Your task to perform on an android device: Open battery settings Image 0: 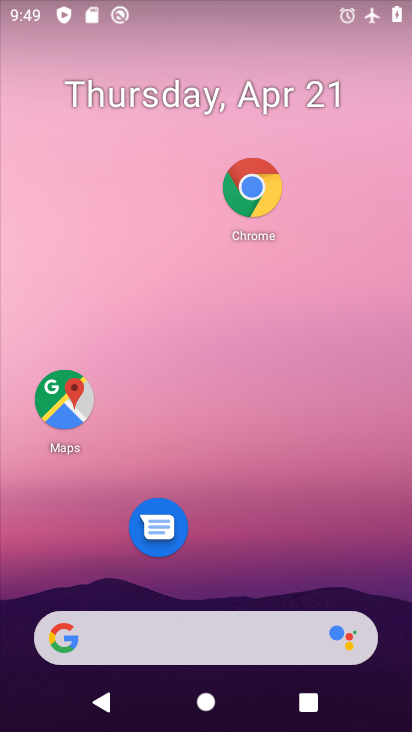
Step 0: drag from (242, 531) to (280, 77)
Your task to perform on an android device: Open battery settings Image 1: 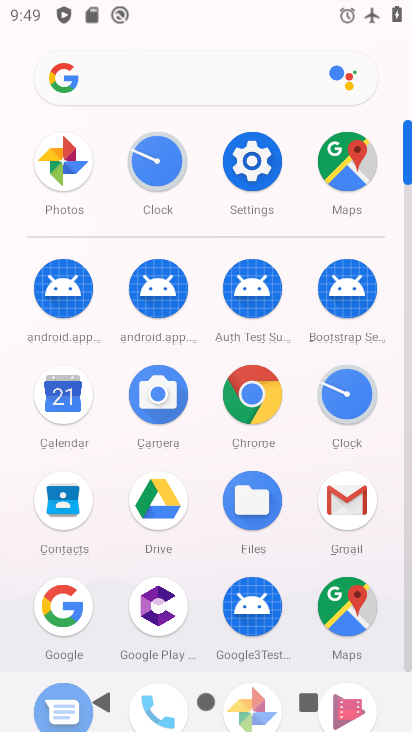
Step 1: click (263, 169)
Your task to perform on an android device: Open battery settings Image 2: 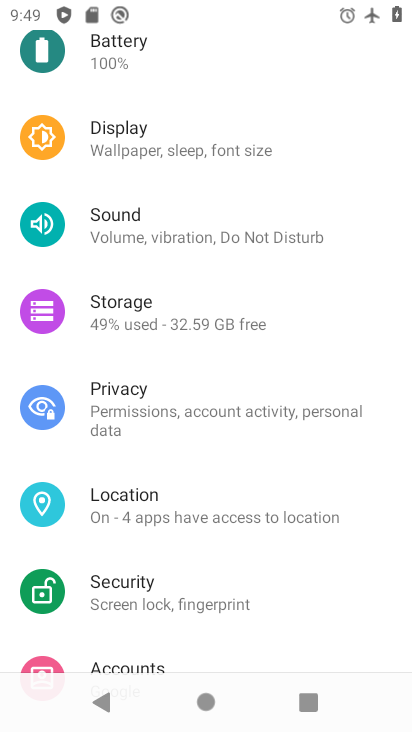
Step 2: click (231, 64)
Your task to perform on an android device: Open battery settings Image 3: 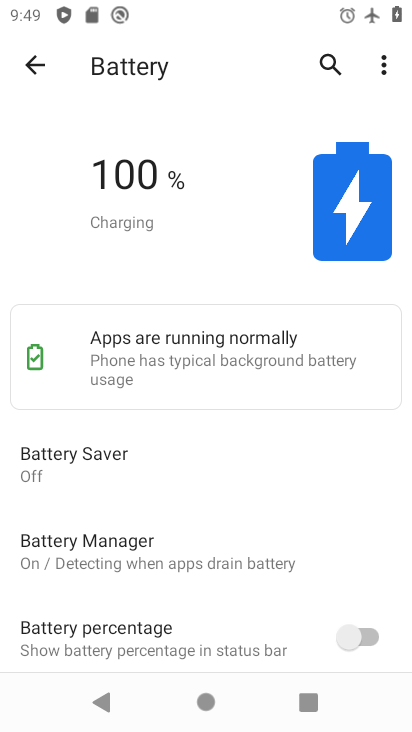
Step 3: task complete